Your task to perform on an android device: add a contact in the contacts app Image 0: 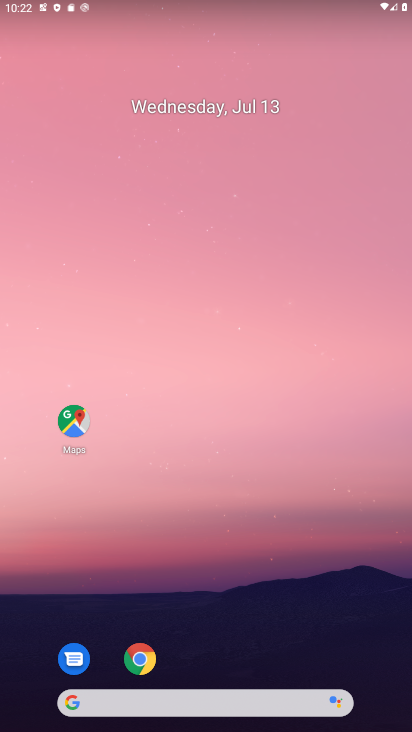
Step 0: drag from (299, 606) to (255, 294)
Your task to perform on an android device: add a contact in the contacts app Image 1: 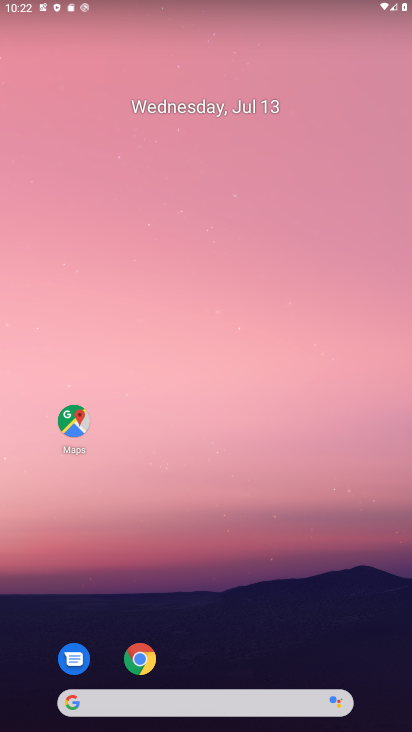
Step 1: drag from (241, 538) to (241, 179)
Your task to perform on an android device: add a contact in the contacts app Image 2: 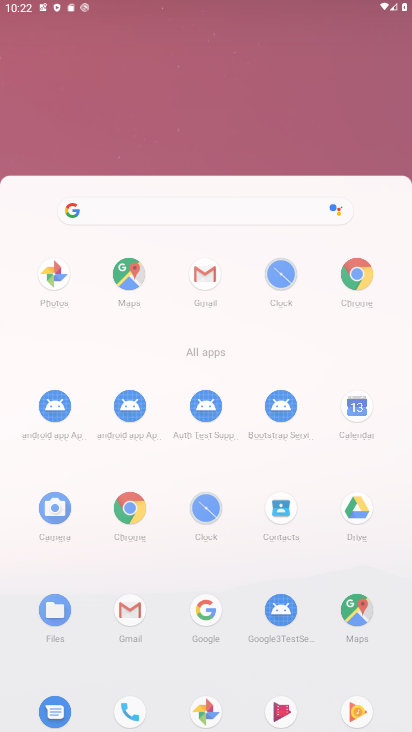
Step 2: drag from (310, 568) to (297, 191)
Your task to perform on an android device: add a contact in the contacts app Image 3: 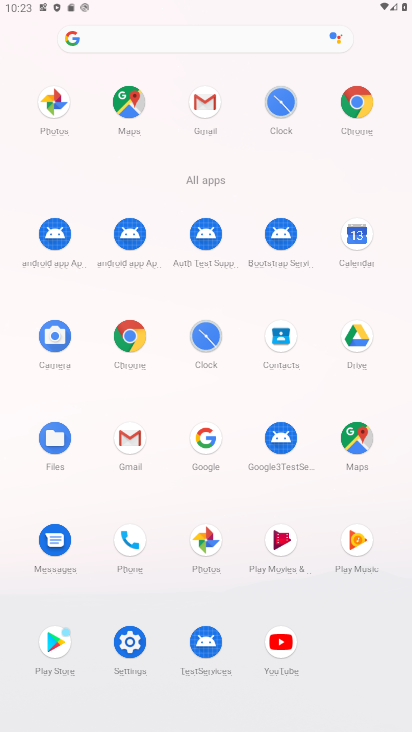
Step 3: click (279, 336)
Your task to perform on an android device: add a contact in the contacts app Image 4: 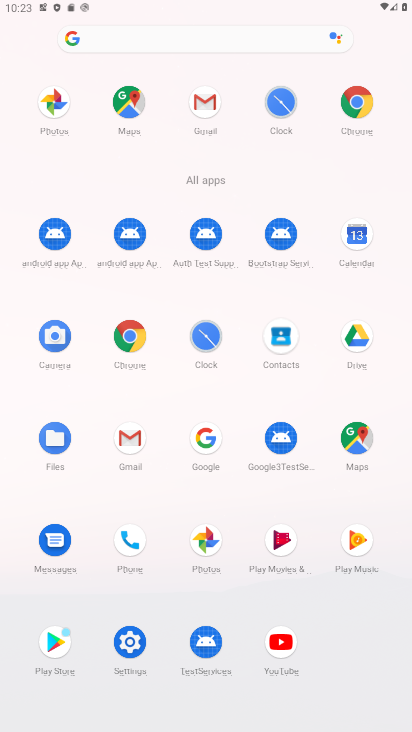
Step 4: click (279, 344)
Your task to perform on an android device: add a contact in the contacts app Image 5: 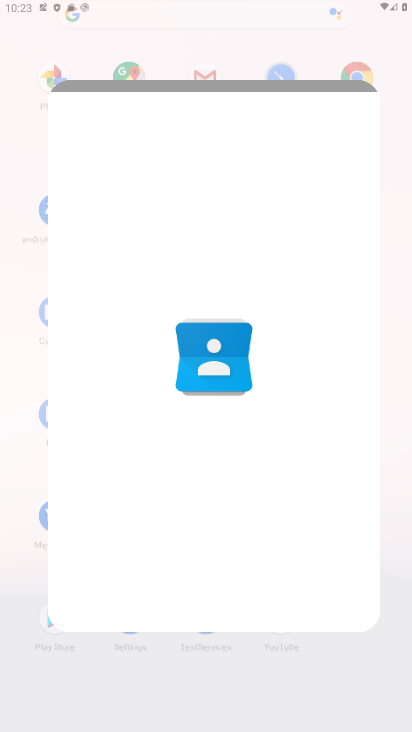
Step 5: click (280, 345)
Your task to perform on an android device: add a contact in the contacts app Image 6: 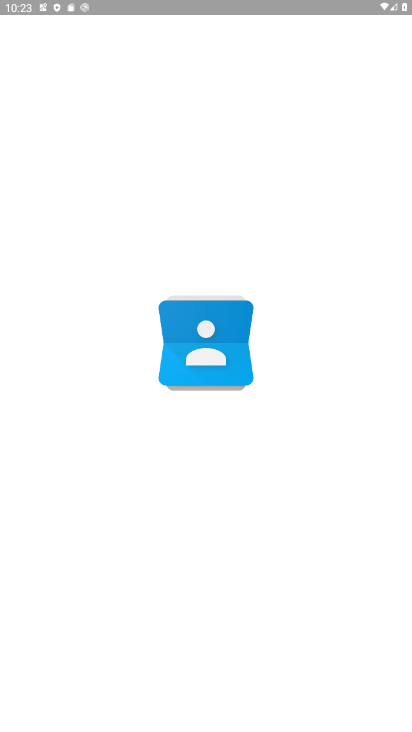
Step 6: click (281, 345)
Your task to perform on an android device: add a contact in the contacts app Image 7: 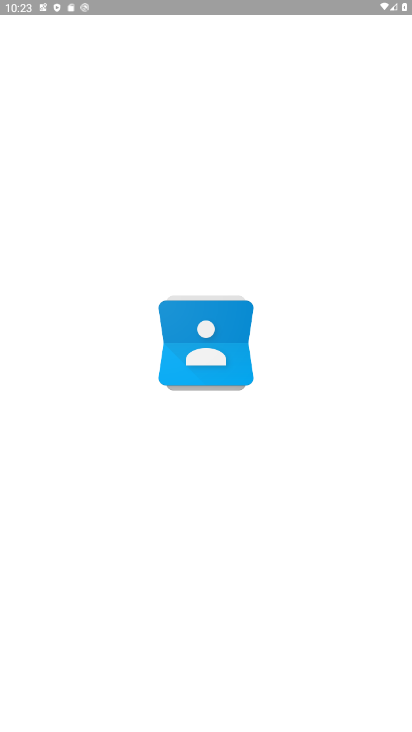
Step 7: click (282, 346)
Your task to perform on an android device: add a contact in the contacts app Image 8: 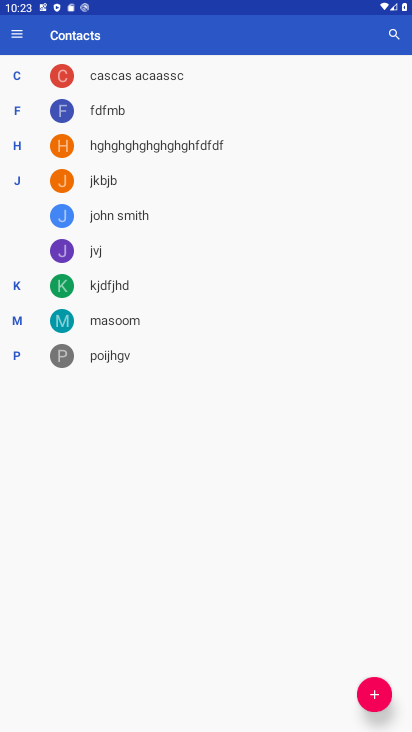
Step 8: click (384, 692)
Your task to perform on an android device: add a contact in the contacts app Image 9: 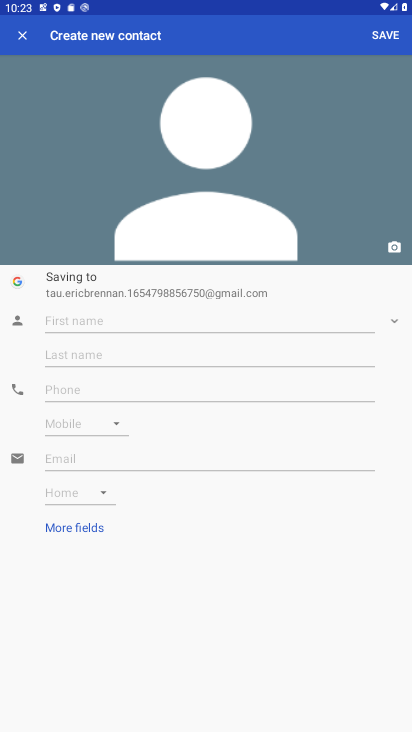
Step 9: click (74, 316)
Your task to perform on an android device: add a contact in the contacts app Image 10: 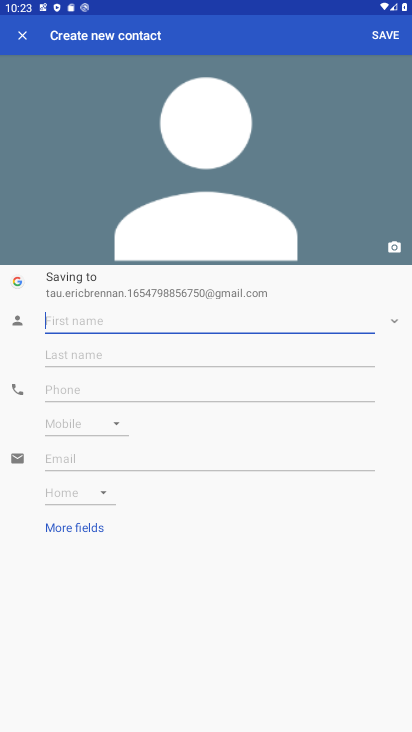
Step 10: click (74, 316)
Your task to perform on an android device: add a contact in the contacts app Image 11: 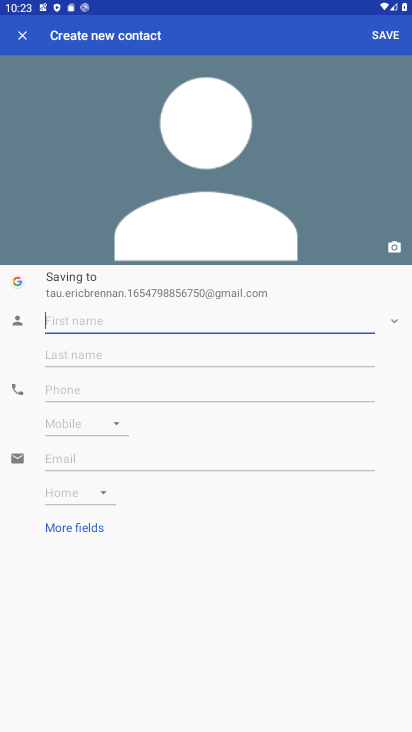
Step 11: click (73, 317)
Your task to perform on an android device: add a contact in the contacts app Image 12: 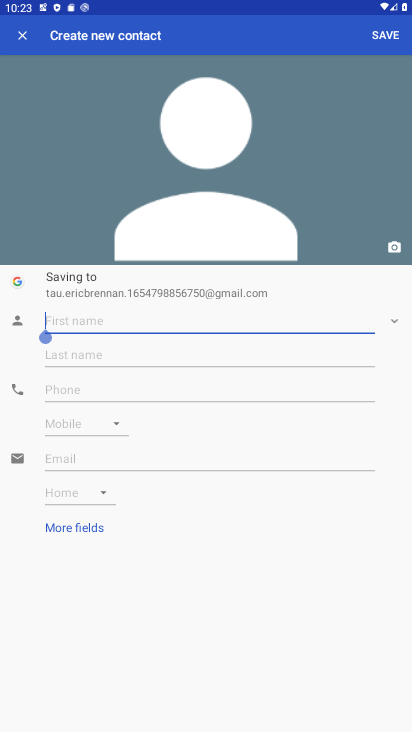
Step 12: click (73, 317)
Your task to perform on an android device: add a contact in the contacts app Image 13: 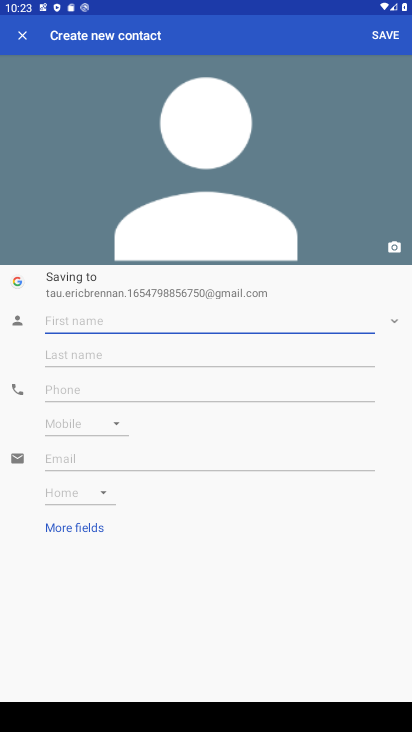
Step 13: type "sdbvkjbskjv"
Your task to perform on an android device: add a contact in the contacts app Image 14: 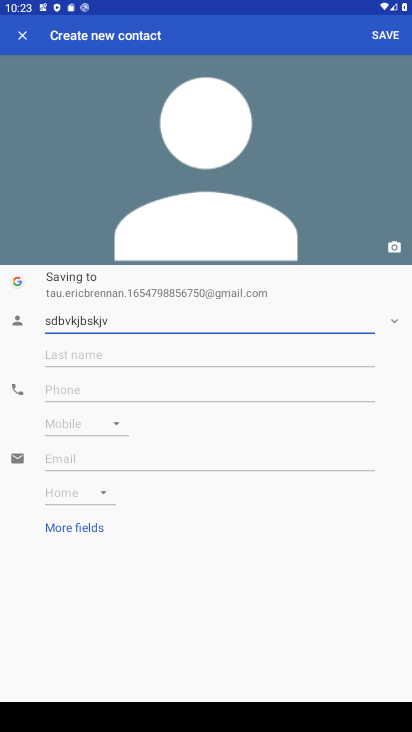
Step 14: click (50, 393)
Your task to perform on an android device: add a contact in the contacts app Image 15: 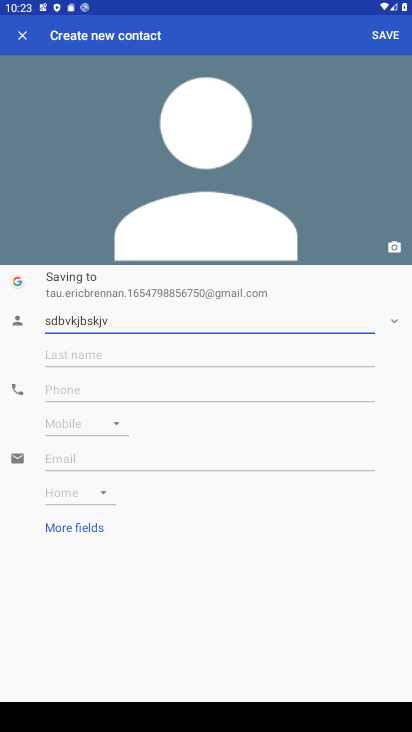
Step 15: click (50, 393)
Your task to perform on an android device: add a contact in the contacts app Image 16: 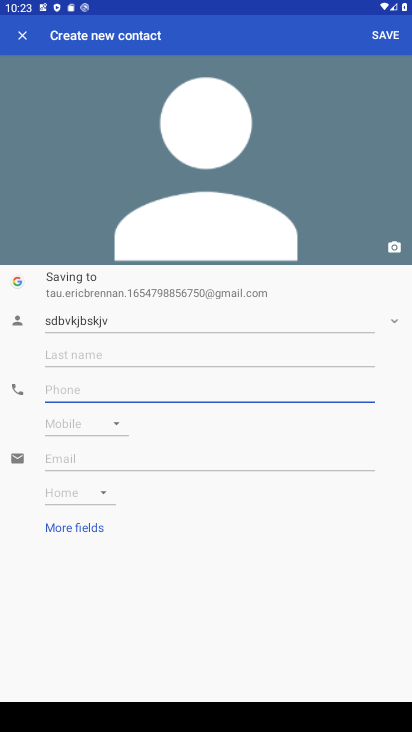
Step 16: click (50, 393)
Your task to perform on an android device: add a contact in the contacts app Image 17: 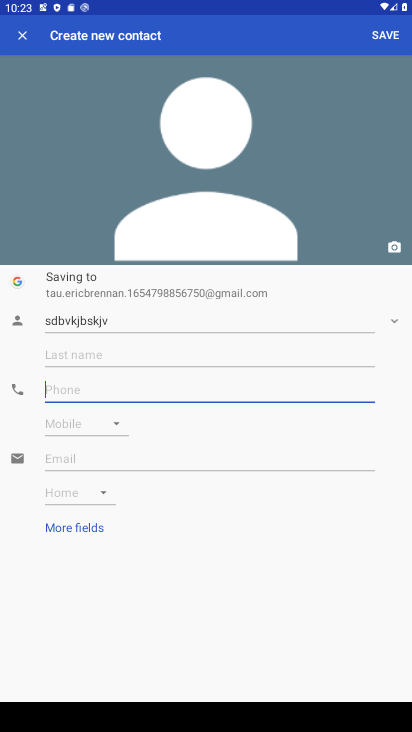
Step 17: type "98757943489"
Your task to perform on an android device: add a contact in the contacts app Image 18: 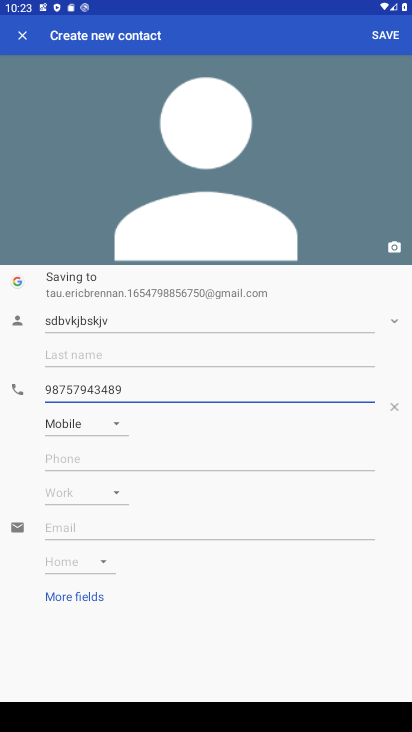
Step 18: click (369, 40)
Your task to perform on an android device: add a contact in the contacts app Image 19: 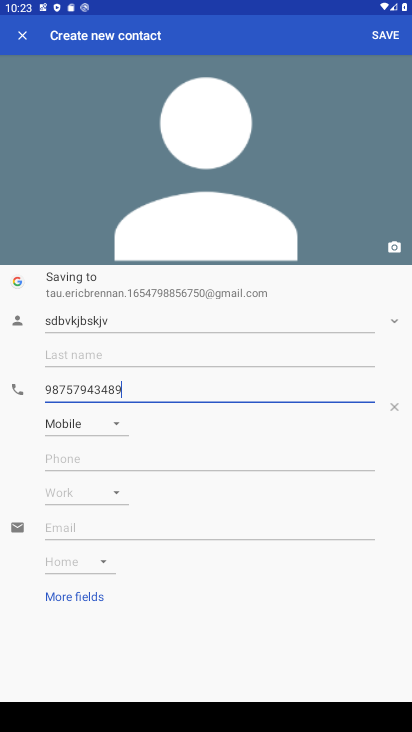
Step 19: click (369, 40)
Your task to perform on an android device: add a contact in the contacts app Image 20: 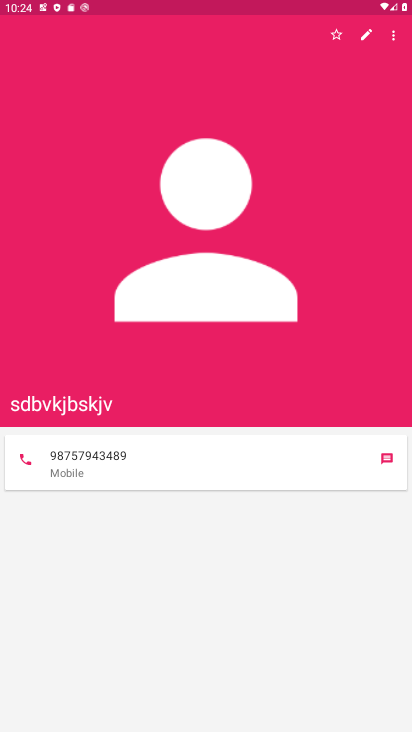
Step 20: task complete